Your task to perform on an android device: change alarm snooze length Image 0: 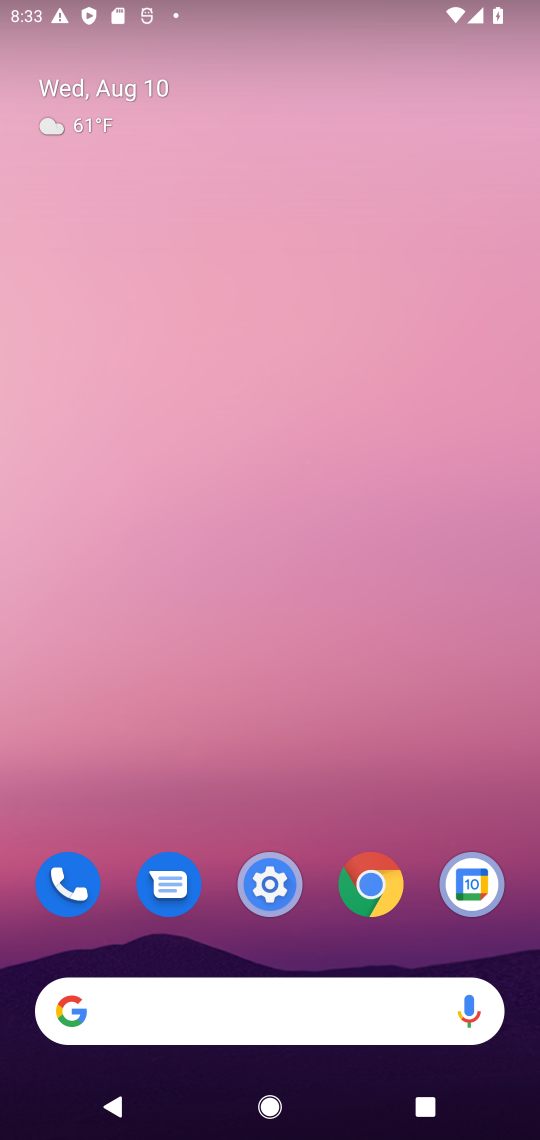
Step 0: click (197, 435)
Your task to perform on an android device: change alarm snooze length Image 1: 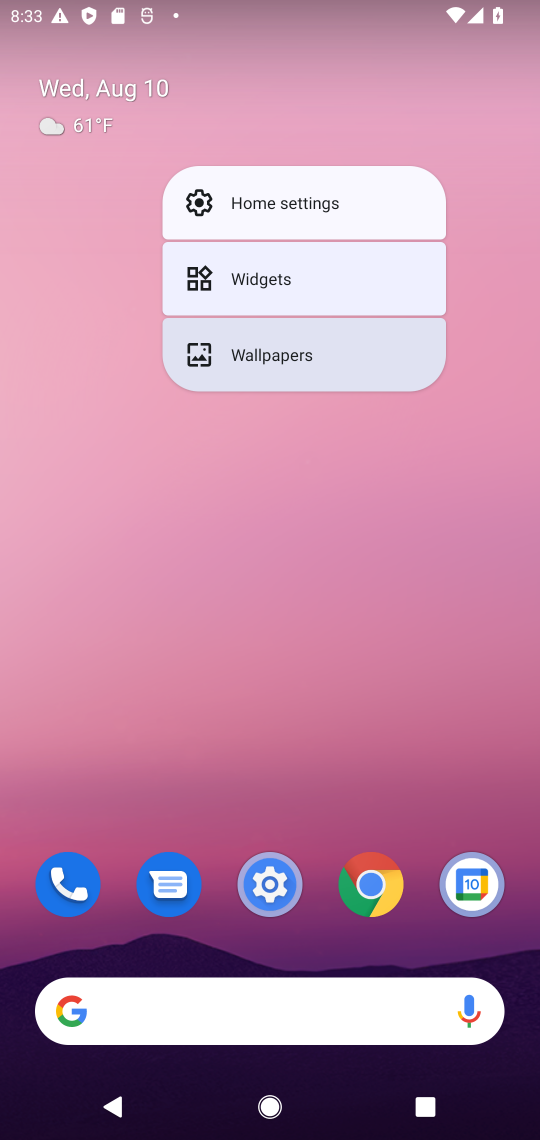
Step 1: task complete